Your task to perform on an android device: turn off notifications in google photos Image 0: 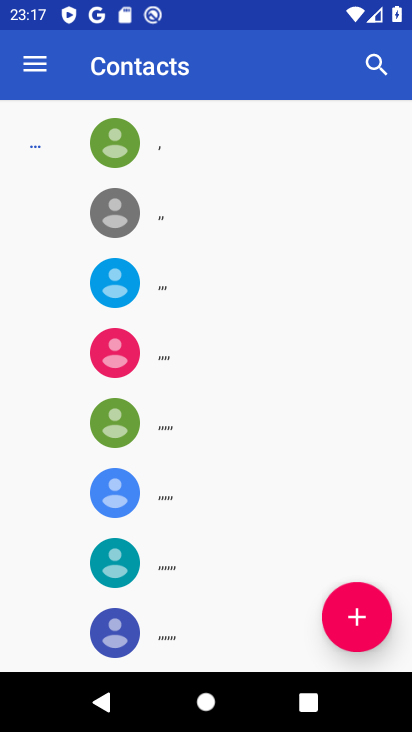
Step 0: press home button
Your task to perform on an android device: turn off notifications in google photos Image 1: 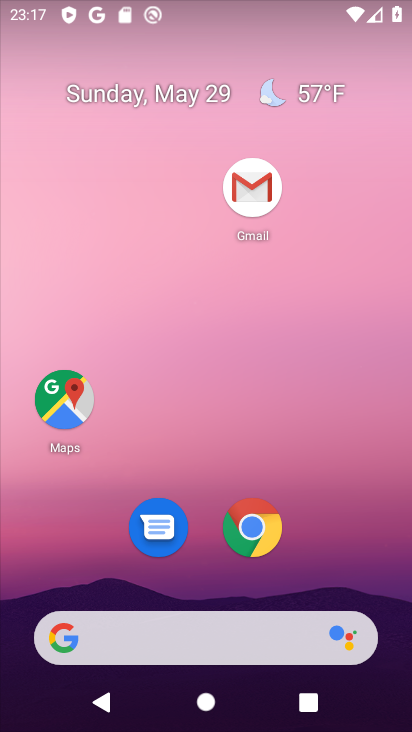
Step 1: drag from (340, 524) to (294, 53)
Your task to perform on an android device: turn off notifications in google photos Image 2: 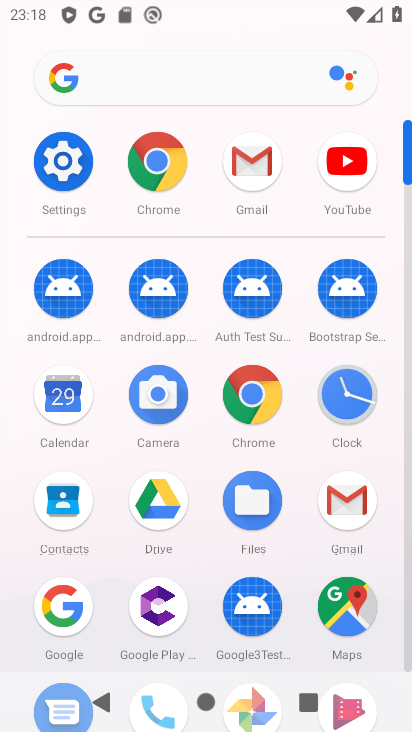
Step 2: drag from (293, 466) to (310, 265)
Your task to perform on an android device: turn off notifications in google photos Image 3: 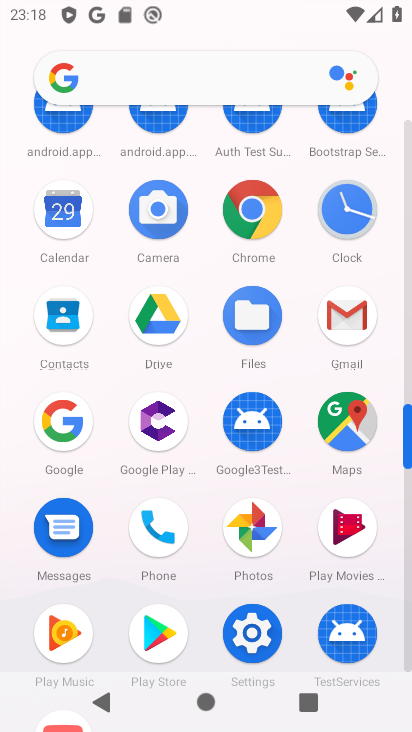
Step 3: click (251, 526)
Your task to perform on an android device: turn off notifications in google photos Image 4: 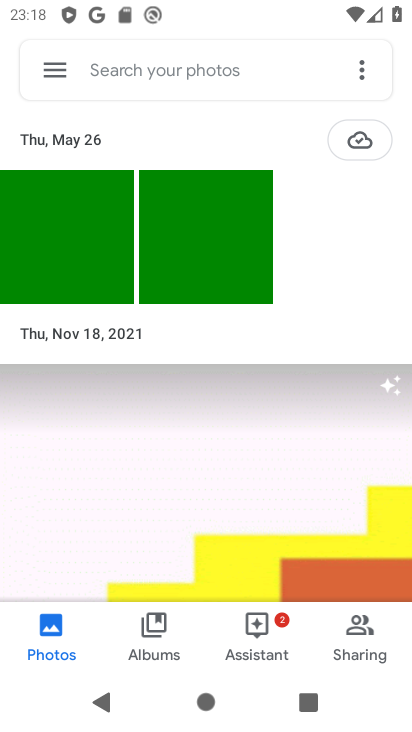
Step 4: click (60, 71)
Your task to perform on an android device: turn off notifications in google photos Image 5: 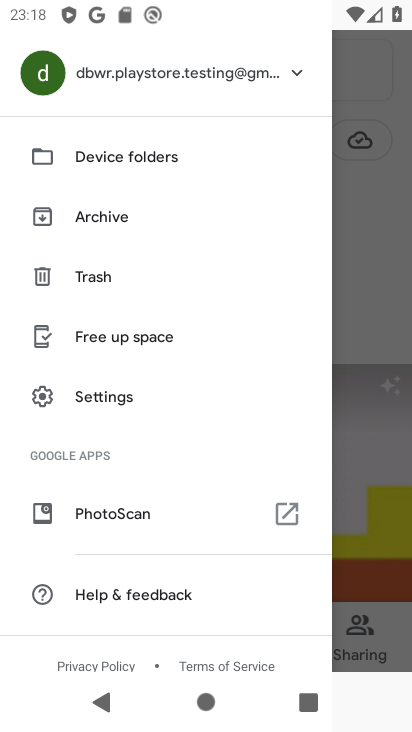
Step 5: click (123, 397)
Your task to perform on an android device: turn off notifications in google photos Image 6: 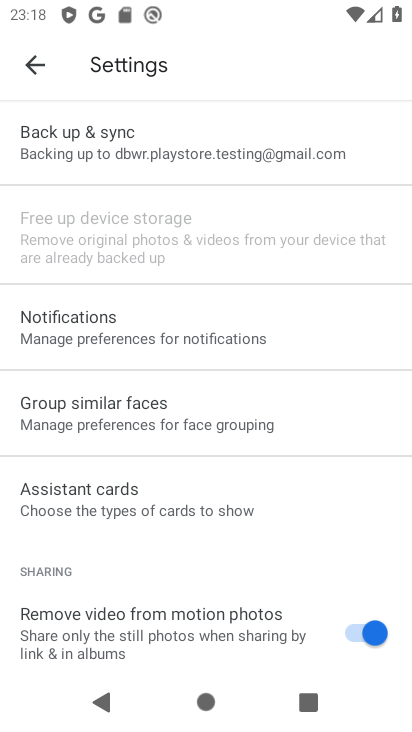
Step 6: click (104, 329)
Your task to perform on an android device: turn off notifications in google photos Image 7: 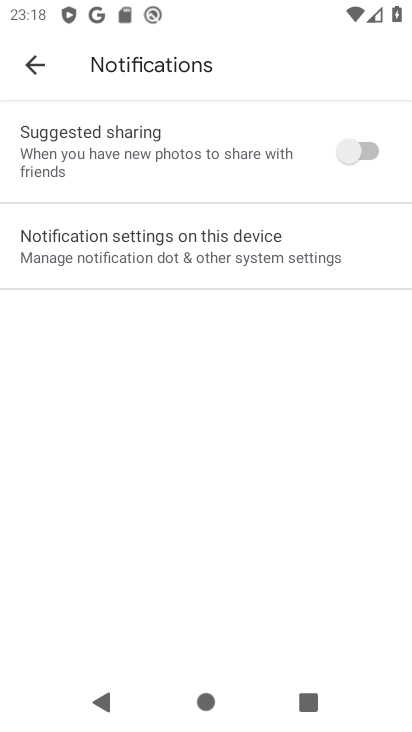
Step 7: click (142, 251)
Your task to perform on an android device: turn off notifications in google photos Image 8: 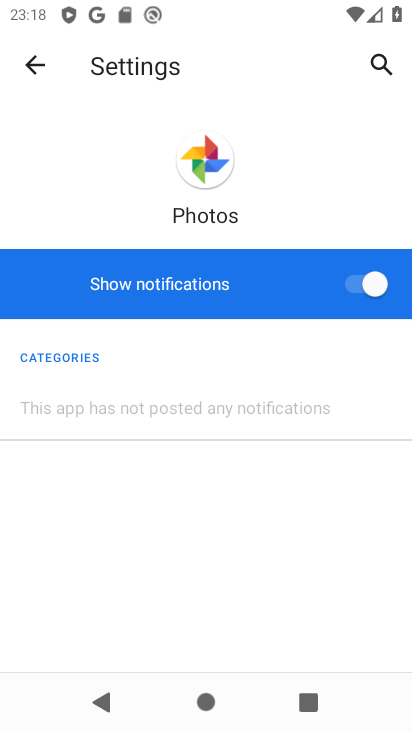
Step 8: click (353, 283)
Your task to perform on an android device: turn off notifications in google photos Image 9: 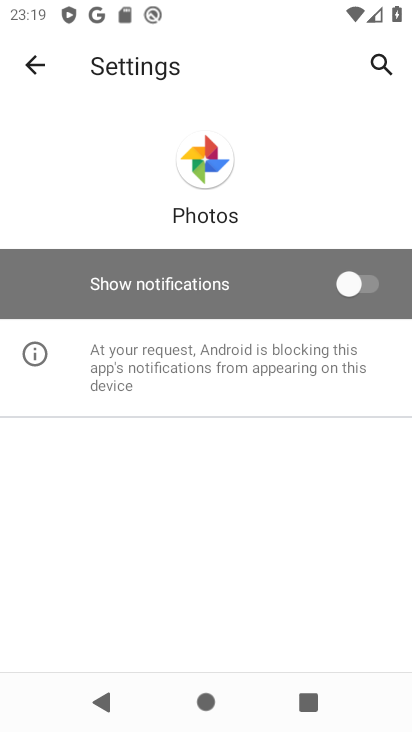
Step 9: task complete